Your task to perform on an android device: Is it going to rain today? Image 0: 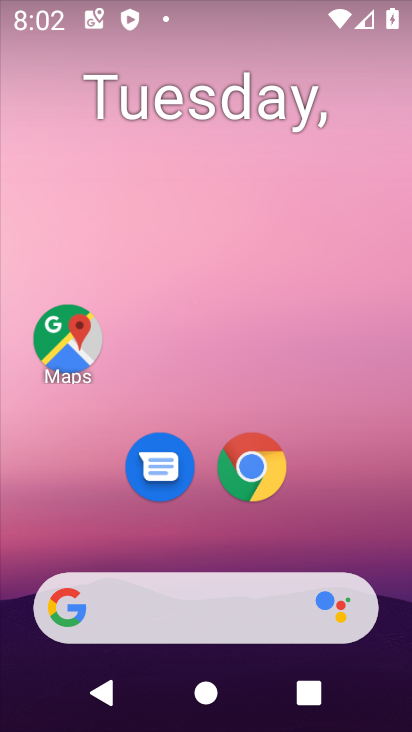
Step 0: click (258, 468)
Your task to perform on an android device: Is it going to rain today? Image 1: 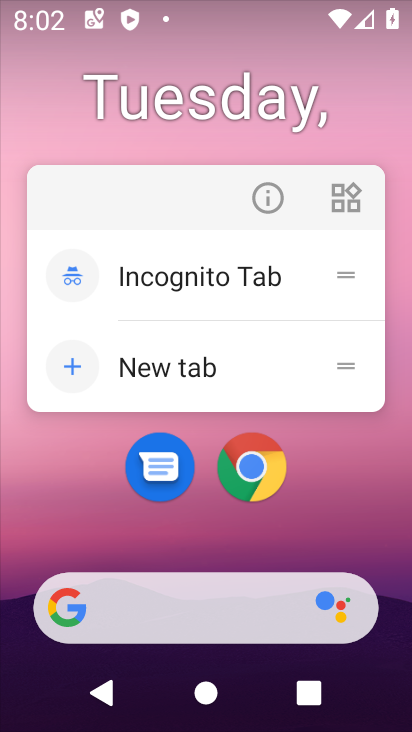
Step 1: click (268, 208)
Your task to perform on an android device: Is it going to rain today? Image 2: 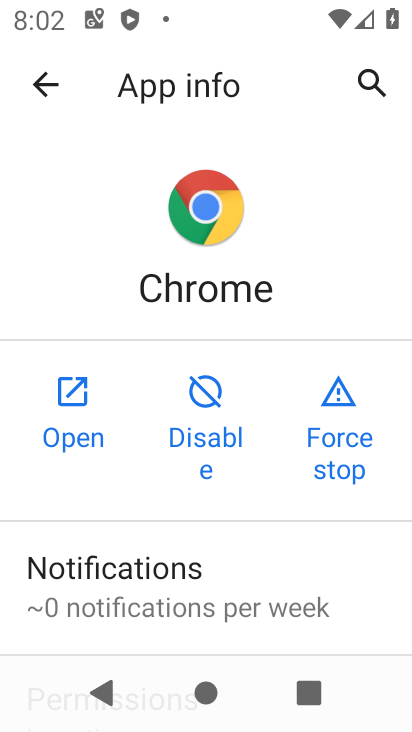
Step 2: drag from (324, 580) to (241, 41)
Your task to perform on an android device: Is it going to rain today? Image 3: 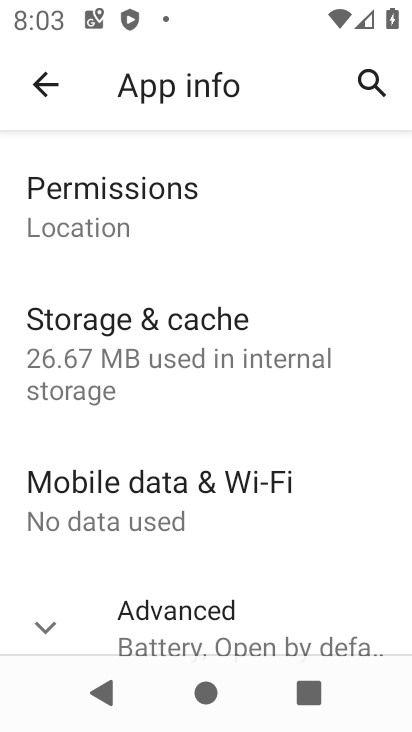
Step 3: drag from (293, 596) to (263, 302)
Your task to perform on an android device: Is it going to rain today? Image 4: 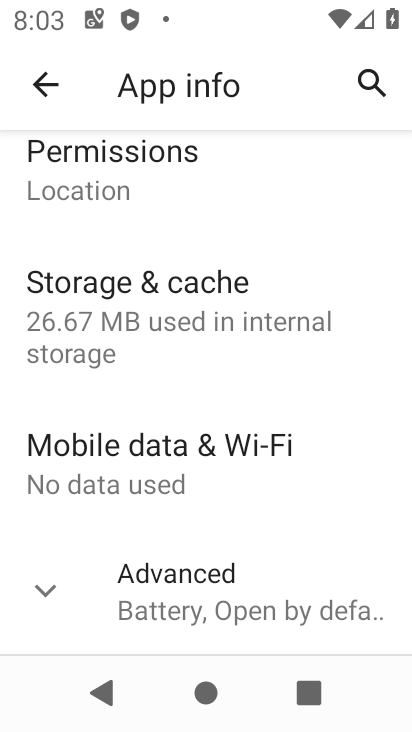
Step 4: click (233, 576)
Your task to perform on an android device: Is it going to rain today? Image 5: 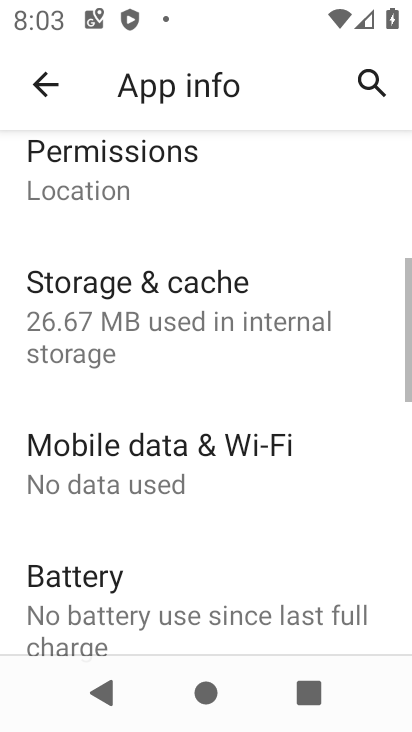
Step 5: drag from (233, 576) to (237, 13)
Your task to perform on an android device: Is it going to rain today? Image 6: 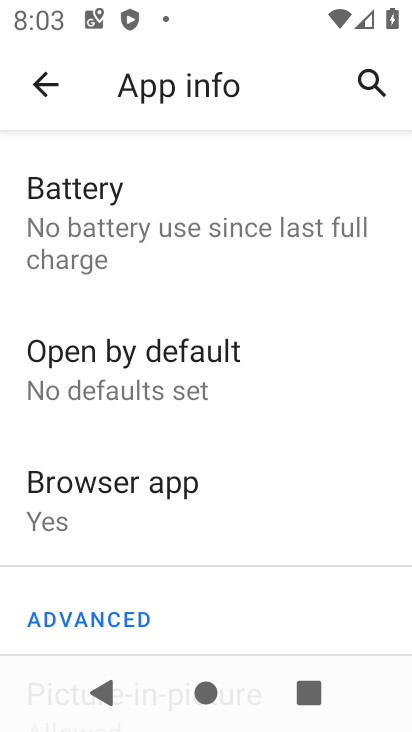
Step 6: drag from (285, 601) to (265, 370)
Your task to perform on an android device: Is it going to rain today? Image 7: 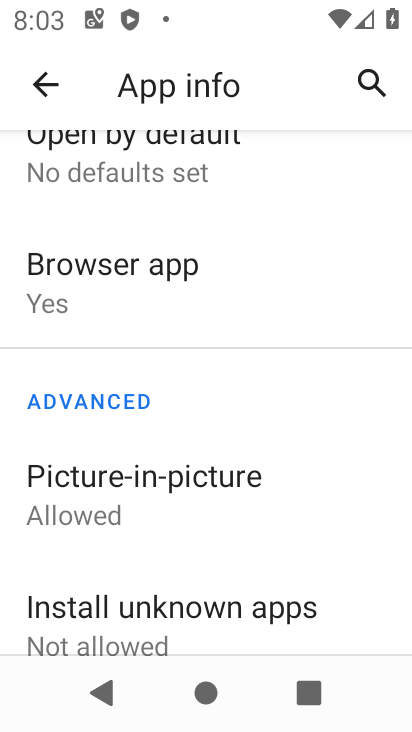
Step 7: click (256, 478)
Your task to perform on an android device: Is it going to rain today? Image 8: 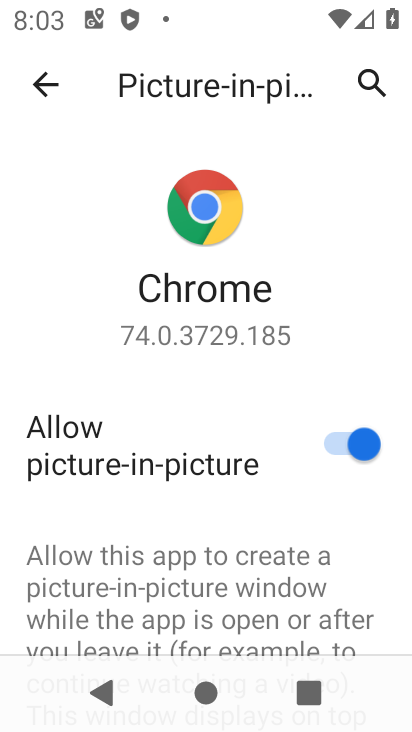
Step 8: press home button
Your task to perform on an android device: Is it going to rain today? Image 9: 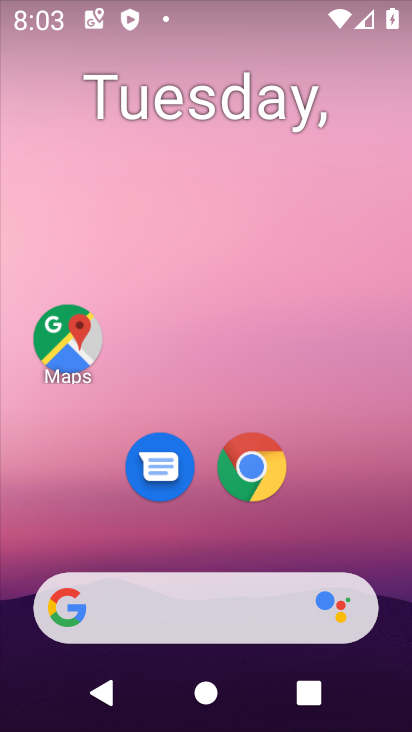
Step 9: click (246, 475)
Your task to perform on an android device: Is it going to rain today? Image 10: 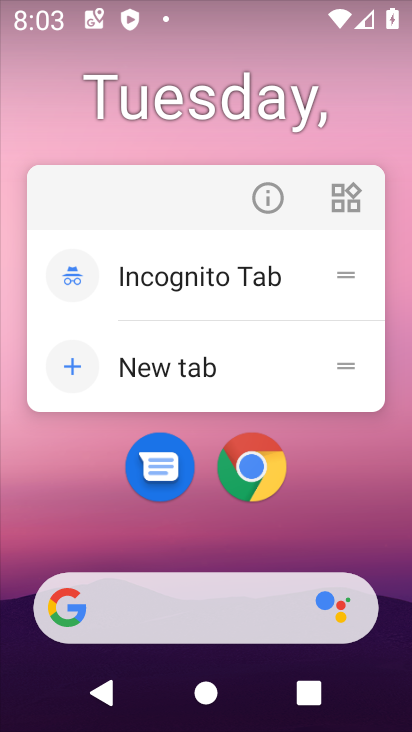
Step 10: click (246, 475)
Your task to perform on an android device: Is it going to rain today? Image 11: 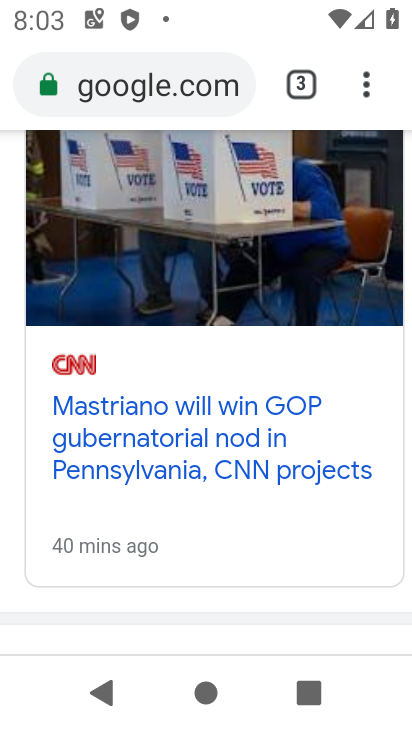
Step 11: click (197, 102)
Your task to perform on an android device: Is it going to rain today? Image 12: 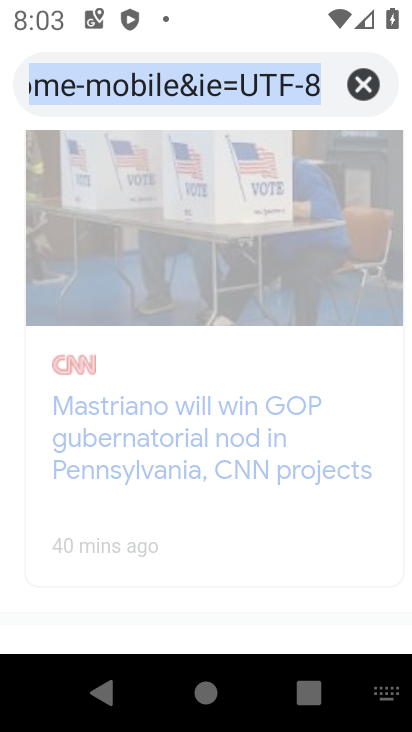
Step 12: type "Is it going to rain today?"
Your task to perform on an android device: Is it going to rain today? Image 13: 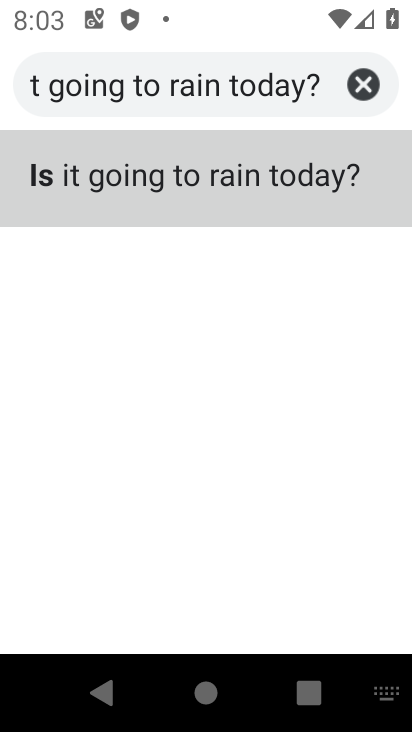
Step 13: click (260, 187)
Your task to perform on an android device: Is it going to rain today? Image 14: 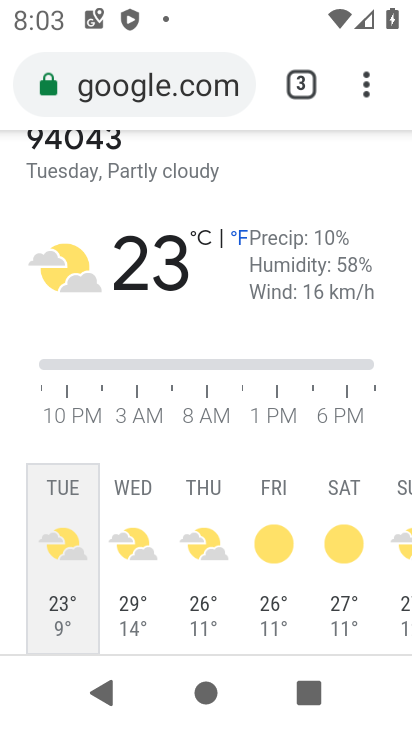
Step 14: click (141, 556)
Your task to perform on an android device: Is it going to rain today? Image 15: 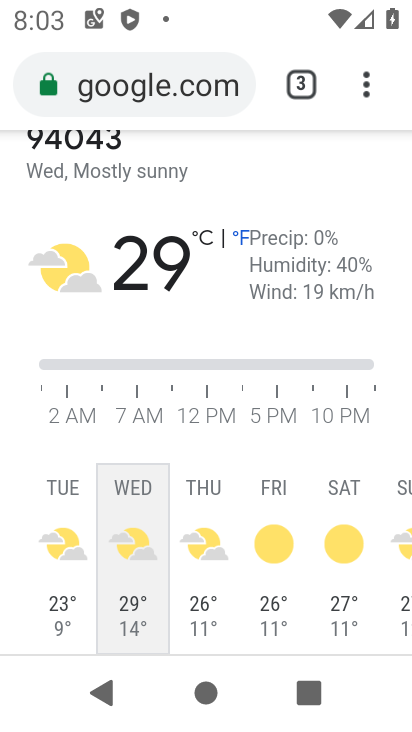
Step 15: task complete